Your task to perform on an android device: When is my next meeting? Image 0: 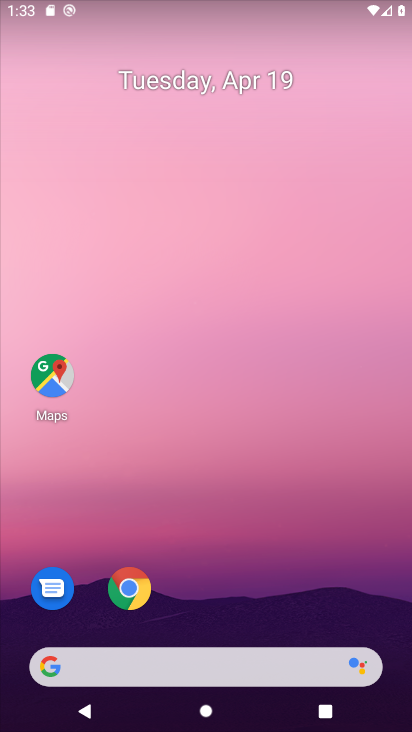
Step 0: drag from (221, 500) to (242, 62)
Your task to perform on an android device: When is my next meeting? Image 1: 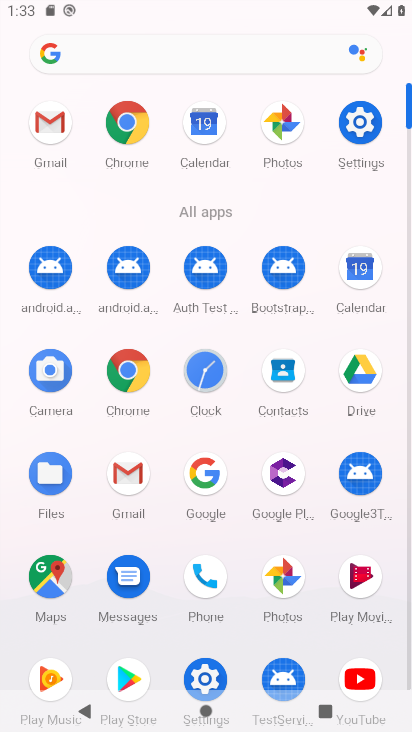
Step 1: click (354, 268)
Your task to perform on an android device: When is my next meeting? Image 2: 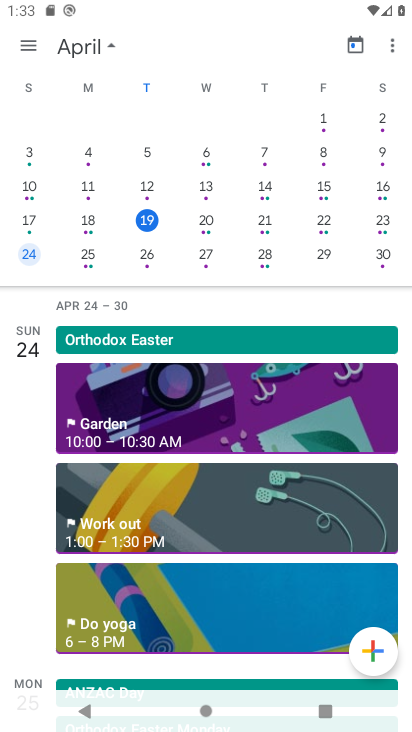
Step 2: click (213, 221)
Your task to perform on an android device: When is my next meeting? Image 3: 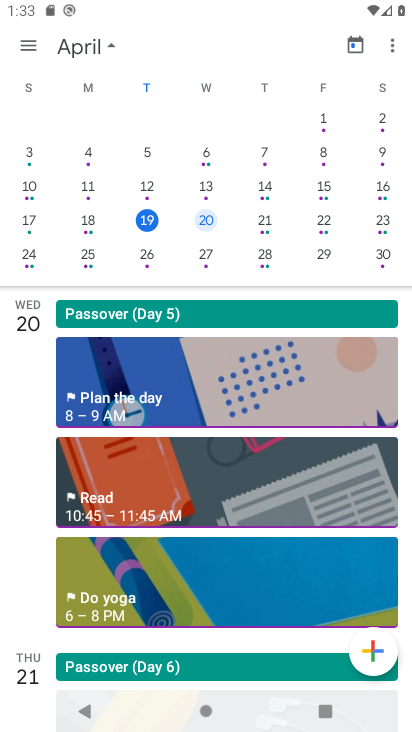
Step 3: click (257, 221)
Your task to perform on an android device: When is my next meeting? Image 4: 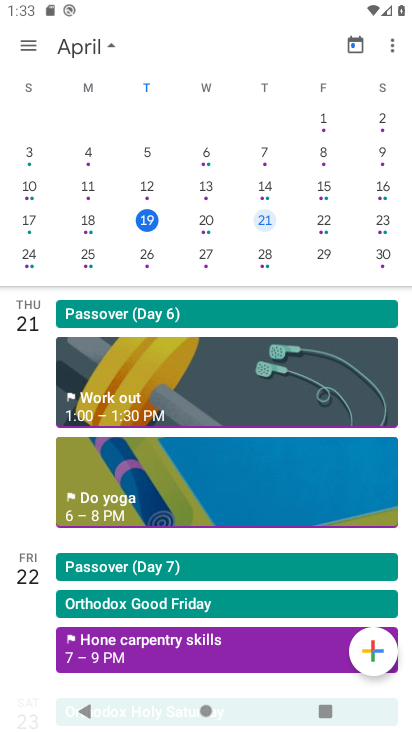
Step 4: click (330, 225)
Your task to perform on an android device: When is my next meeting? Image 5: 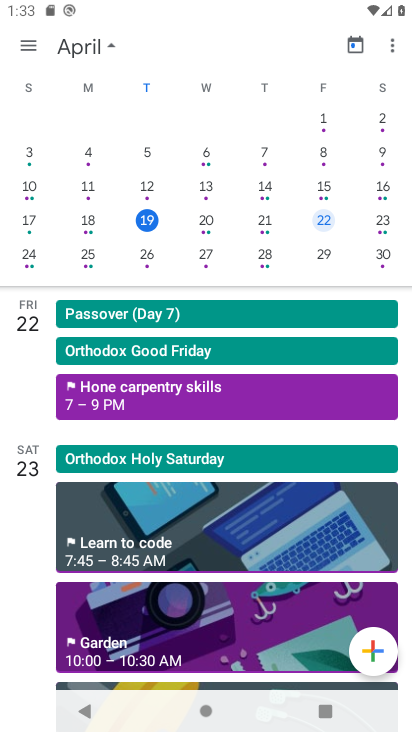
Step 5: click (379, 225)
Your task to perform on an android device: When is my next meeting? Image 6: 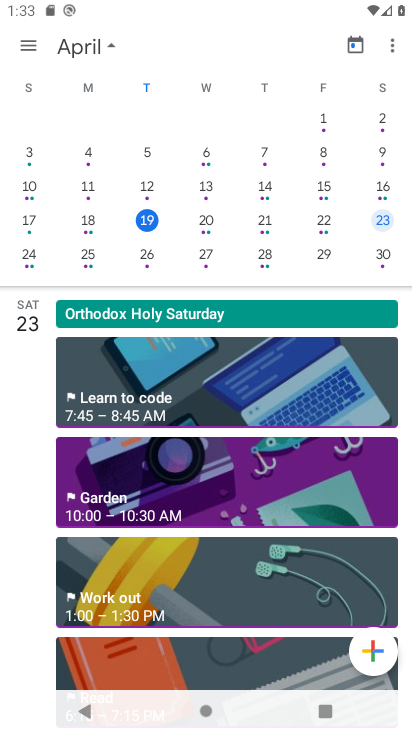
Step 6: click (40, 259)
Your task to perform on an android device: When is my next meeting? Image 7: 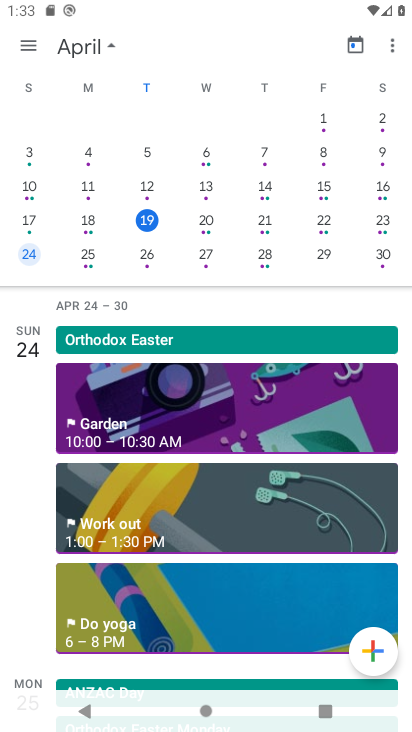
Step 7: click (84, 264)
Your task to perform on an android device: When is my next meeting? Image 8: 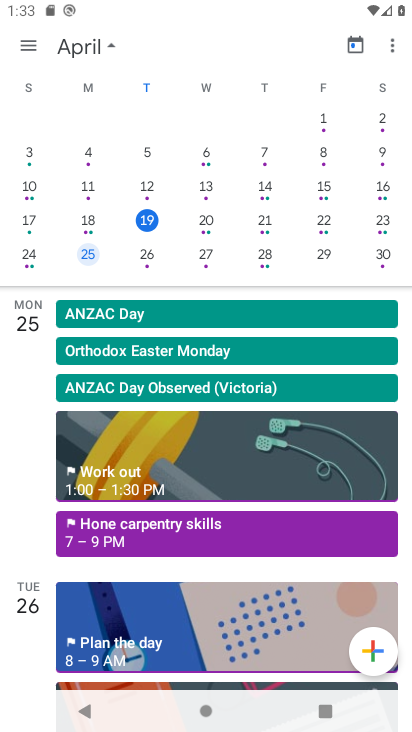
Step 8: click (145, 269)
Your task to perform on an android device: When is my next meeting? Image 9: 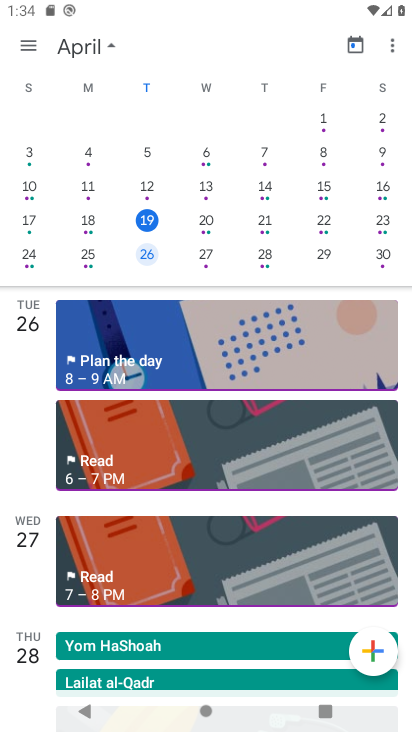
Step 9: click (209, 262)
Your task to perform on an android device: When is my next meeting? Image 10: 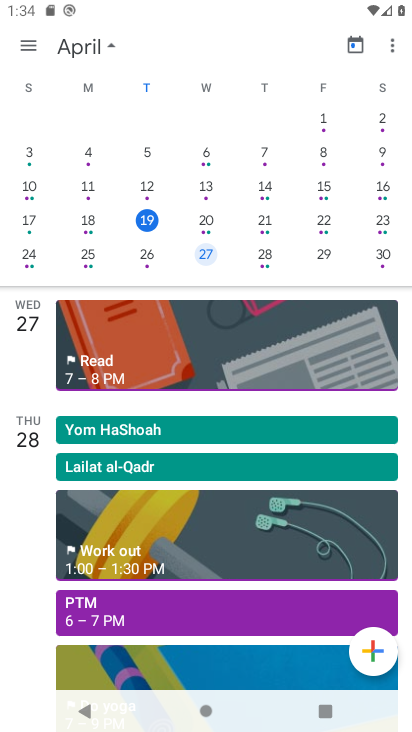
Step 10: task complete